Your task to perform on an android device: set an alarm Image 0: 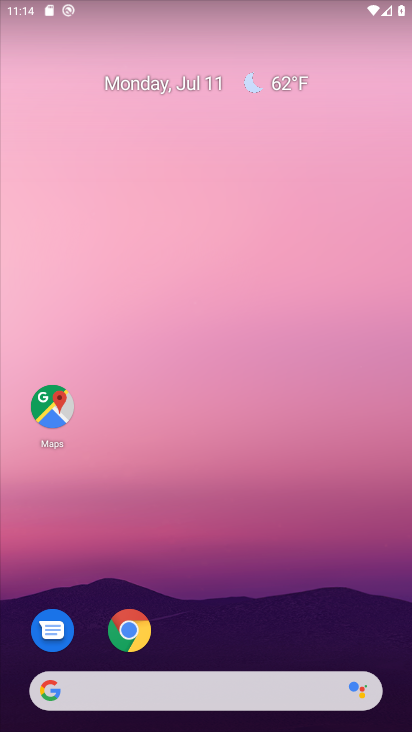
Step 0: drag from (243, 598) to (227, 85)
Your task to perform on an android device: set an alarm Image 1: 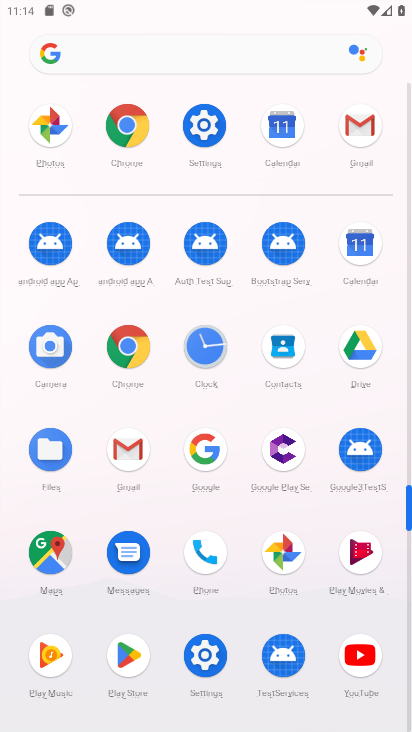
Step 1: click (212, 349)
Your task to perform on an android device: set an alarm Image 2: 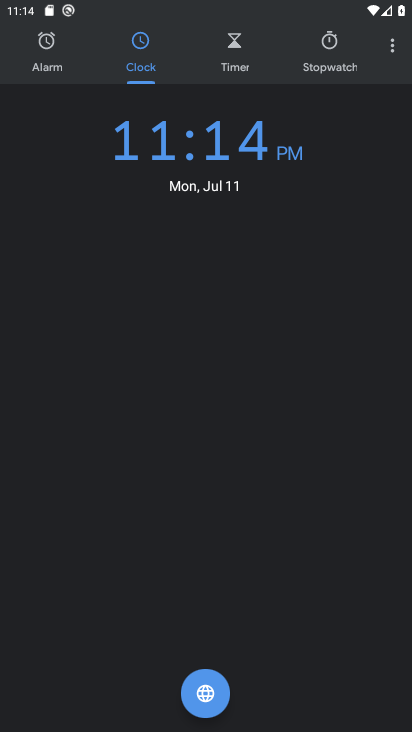
Step 2: click (51, 70)
Your task to perform on an android device: set an alarm Image 3: 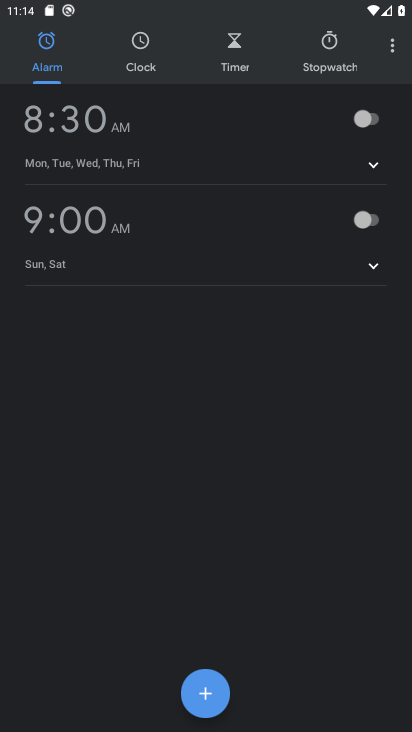
Step 3: click (210, 689)
Your task to perform on an android device: set an alarm Image 4: 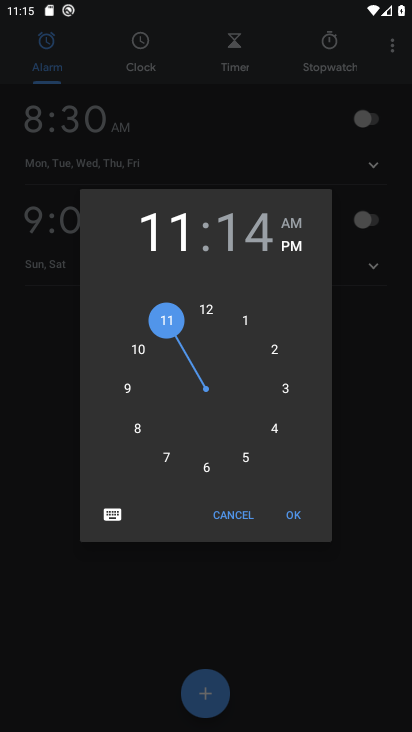
Step 4: click (212, 312)
Your task to perform on an android device: set an alarm Image 5: 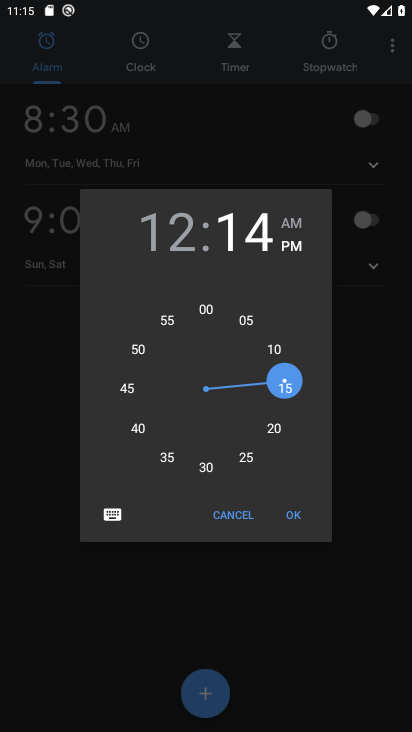
Step 5: click (249, 242)
Your task to perform on an android device: set an alarm Image 6: 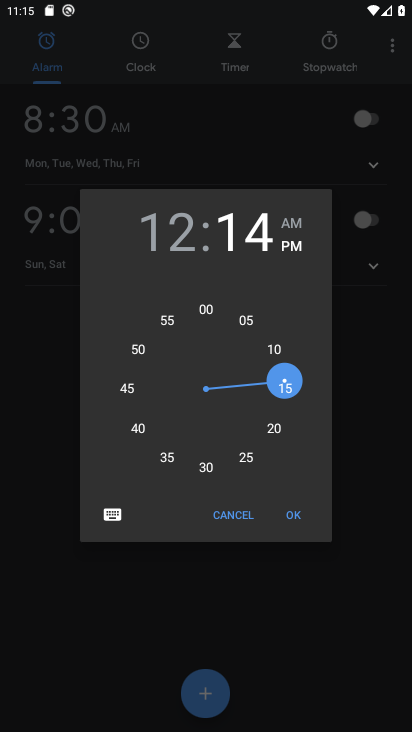
Step 6: click (212, 310)
Your task to perform on an android device: set an alarm Image 7: 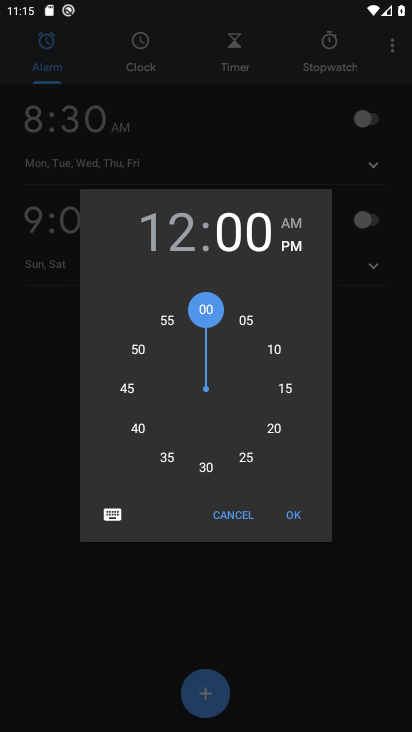
Step 7: click (295, 516)
Your task to perform on an android device: set an alarm Image 8: 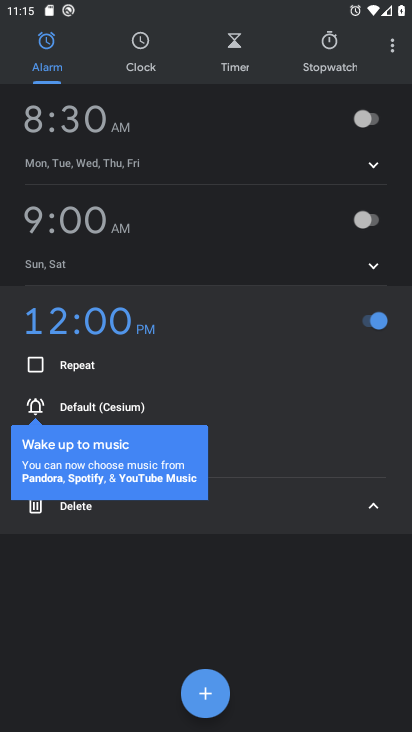
Step 8: task complete